Your task to perform on an android device: find photos in the google photos app Image 0: 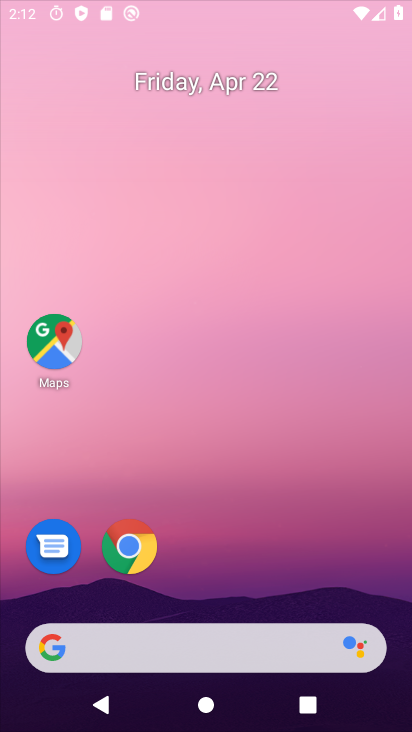
Step 0: click (232, 381)
Your task to perform on an android device: find photos in the google photos app Image 1: 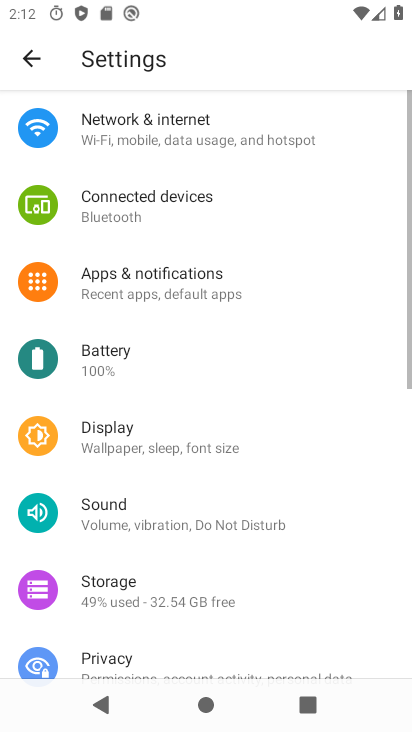
Step 1: press home button
Your task to perform on an android device: find photos in the google photos app Image 2: 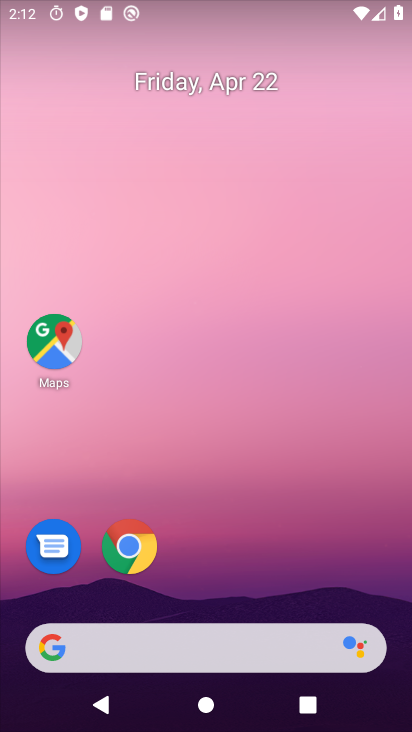
Step 2: drag from (193, 559) to (201, 255)
Your task to perform on an android device: find photos in the google photos app Image 3: 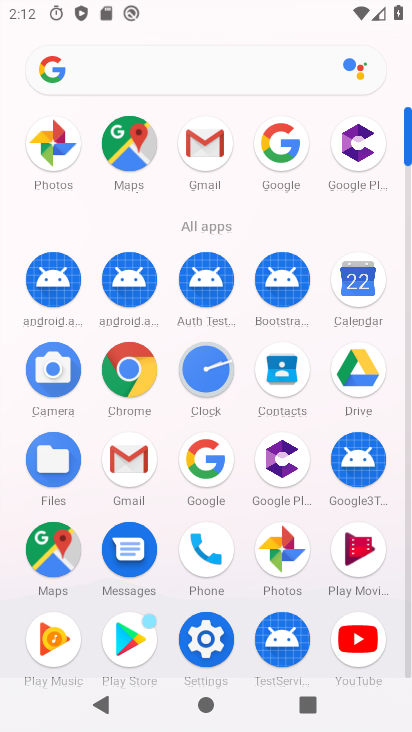
Step 3: click (310, 547)
Your task to perform on an android device: find photos in the google photos app Image 4: 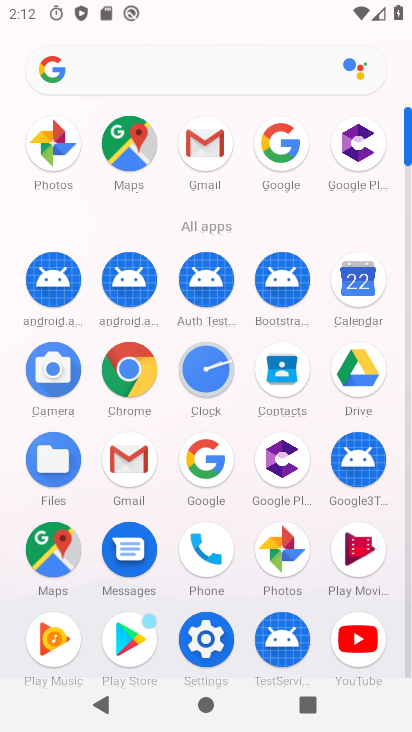
Step 4: click (302, 547)
Your task to perform on an android device: find photos in the google photos app Image 5: 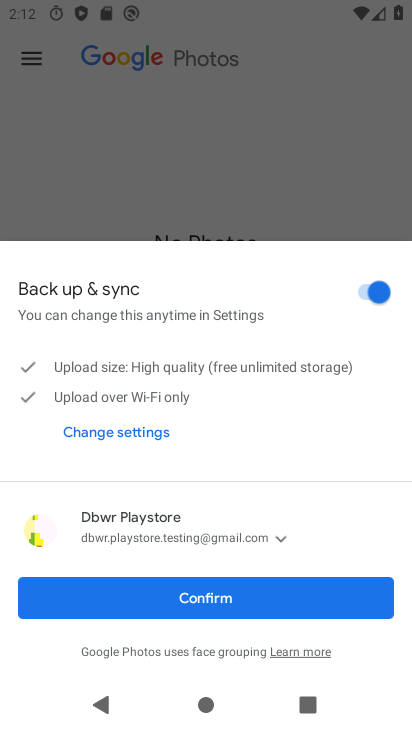
Step 5: click (187, 610)
Your task to perform on an android device: find photos in the google photos app Image 6: 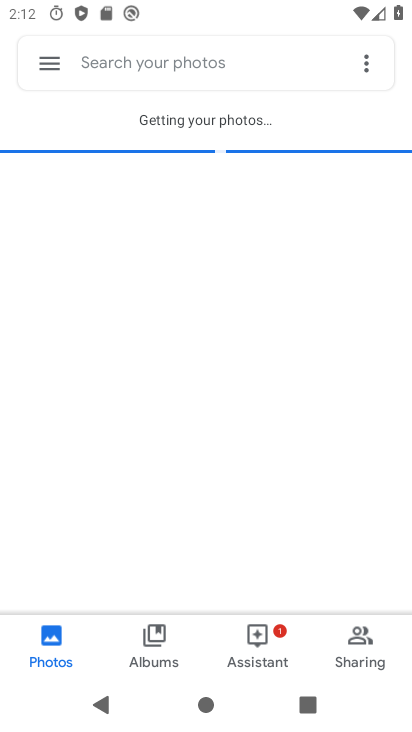
Step 6: click (142, 639)
Your task to perform on an android device: find photos in the google photos app Image 7: 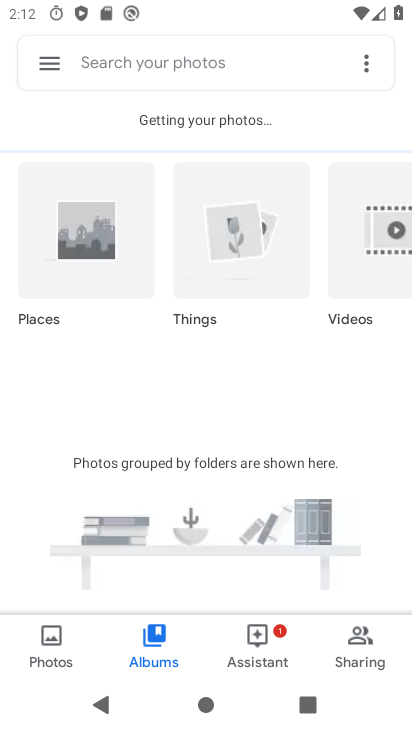
Step 7: click (55, 653)
Your task to perform on an android device: find photos in the google photos app Image 8: 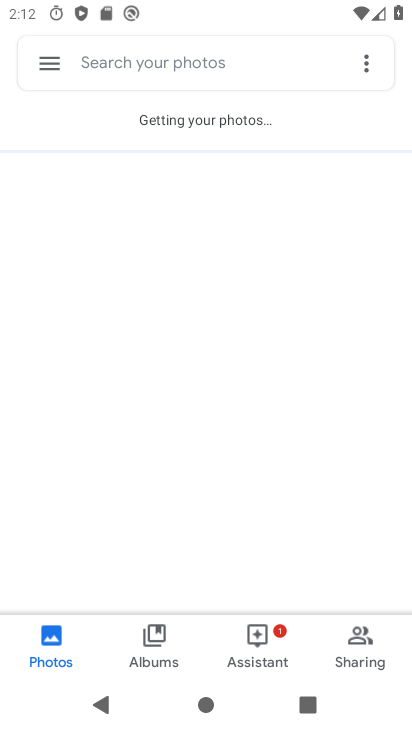
Step 8: click (154, 252)
Your task to perform on an android device: find photos in the google photos app Image 9: 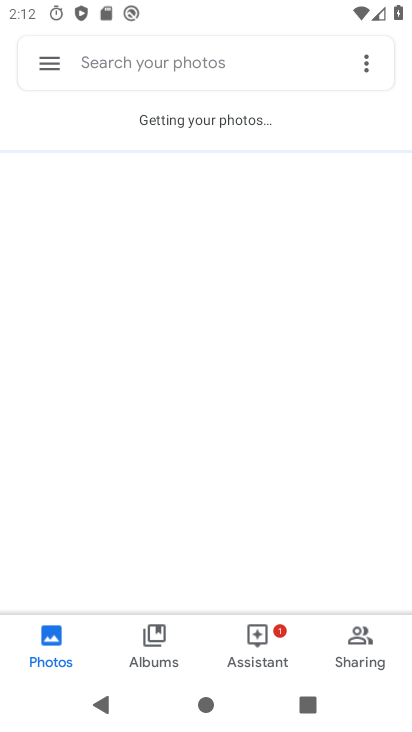
Step 9: click (117, 237)
Your task to perform on an android device: find photos in the google photos app Image 10: 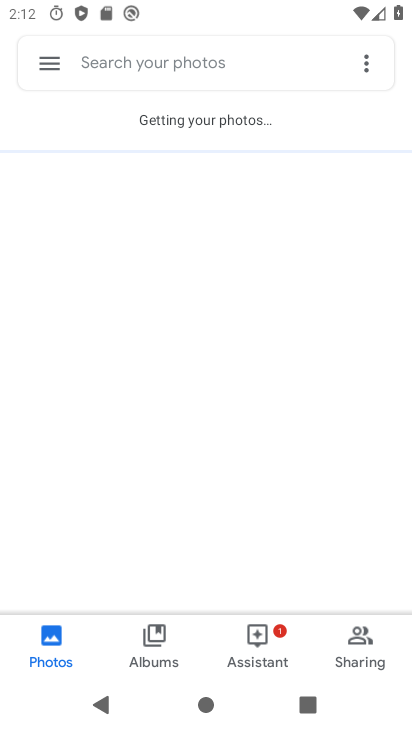
Step 10: click (88, 231)
Your task to perform on an android device: find photos in the google photos app Image 11: 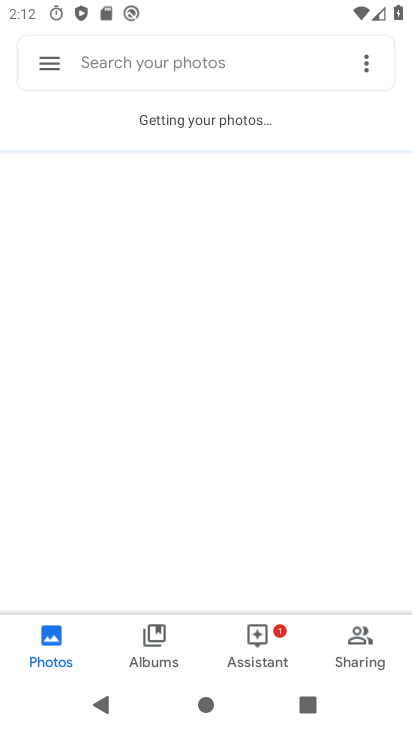
Step 11: drag from (92, 231) to (169, 139)
Your task to perform on an android device: find photos in the google photos app Image 12: 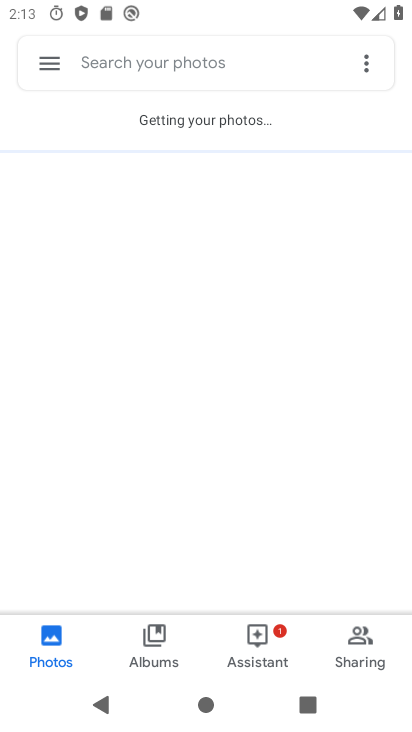
Step 12: click (53, 69)
Your task to perform on an android device: find photos in the google photos app Image 13: 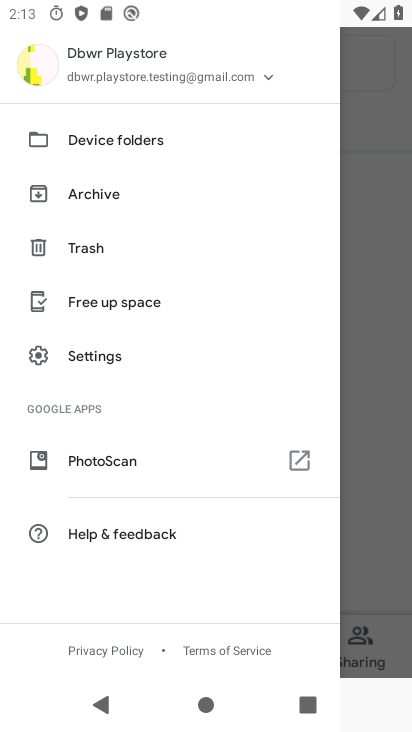
Step 13: task complete